Your task to perform on an android device: turn off airplane mode Image 0: 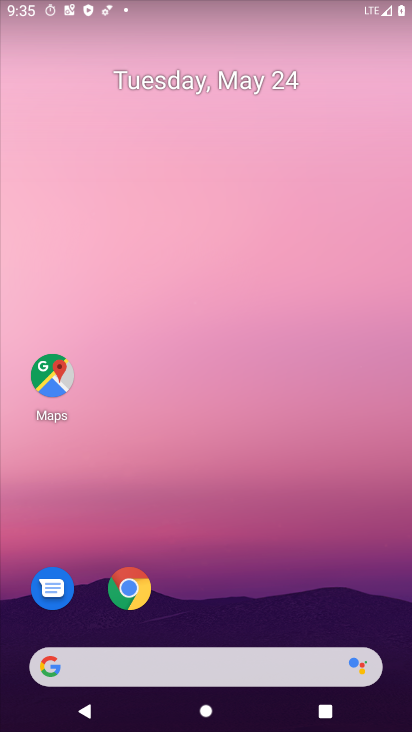
Step 0: drag from (206, 613) to (237, 148)
Your task to perform on an android device: turn off airplane mode Image 1: 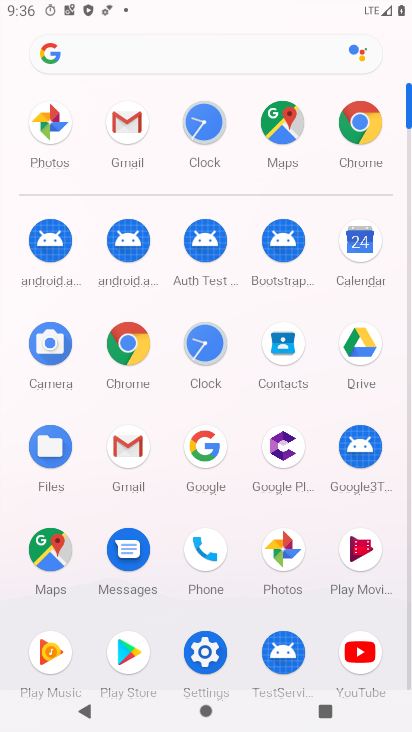
Step 1: task complete